Your task to perform on an android device: check data usage Image 0: 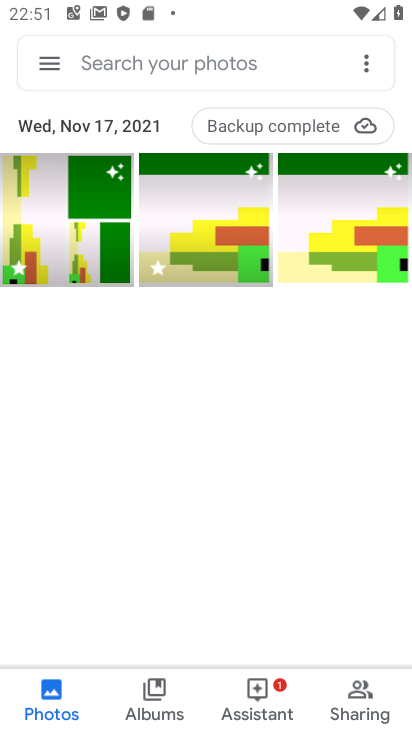
Step 0: press home button
Your task to perform on an android device: check data usage Image 1: 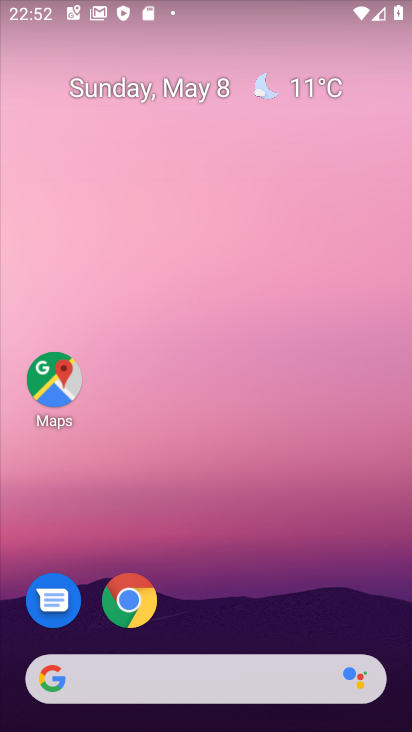
Step 1: drag from (227, 647) to (291, 2)
Your task to perform on an android device: check data usage Image 2: 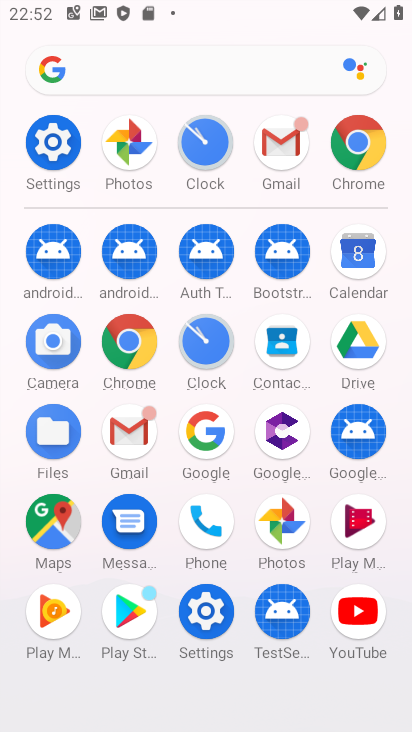
Step 2: click (49, 134)
Your task to perform on an android device: check data usage Image 3: 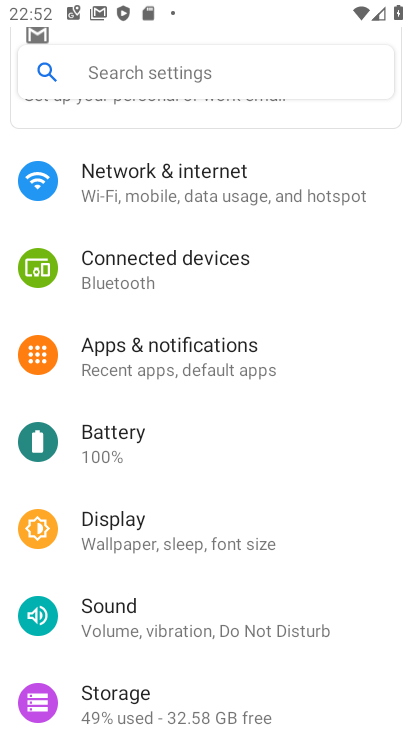
Step 3: click (212, 188)
Your task to perform on an android device: check data usage Image 4: 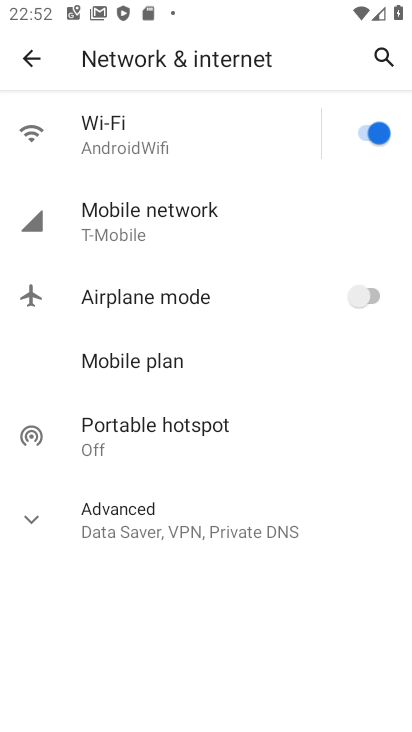
Step 4: click (195, 219)
Your task to perform on an android device: check data usage Image 5: 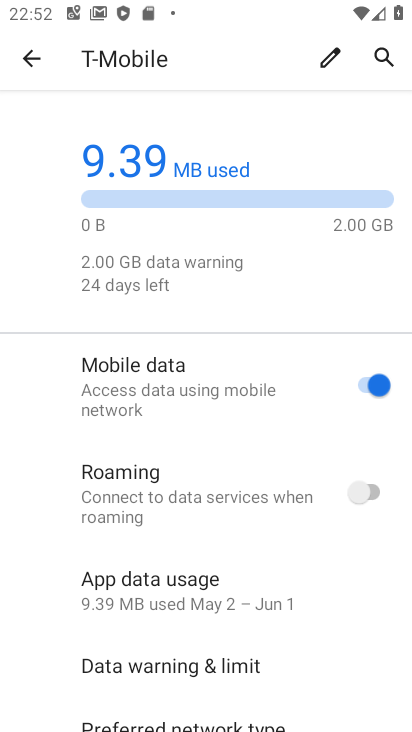
Step 5: task complete